Your task to perform on an android device: When is my next appointment? Image 0: 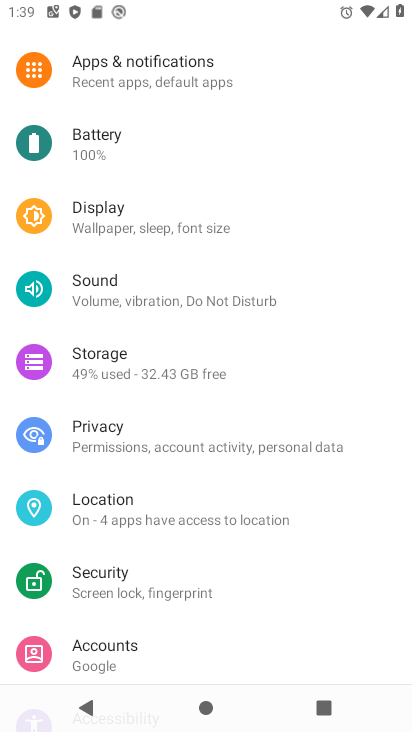
Step 0: press home button
Your task to perform on an android device: When is my next appointment? Image 1: 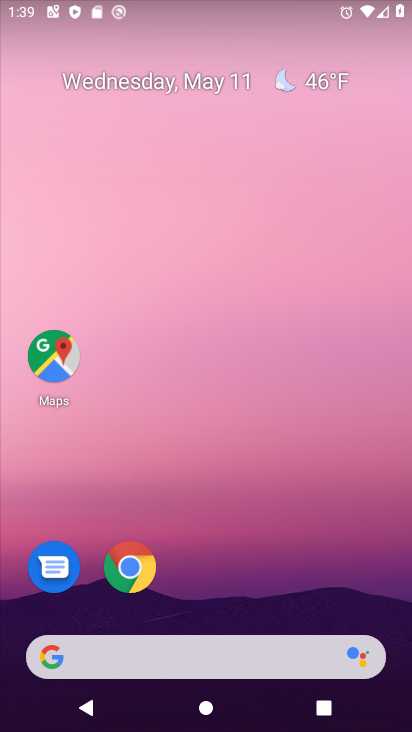
Step 1: drag from (209, 632) to (111, 8)
Your task to perform on an android device: When is my next appointment? Image 2: 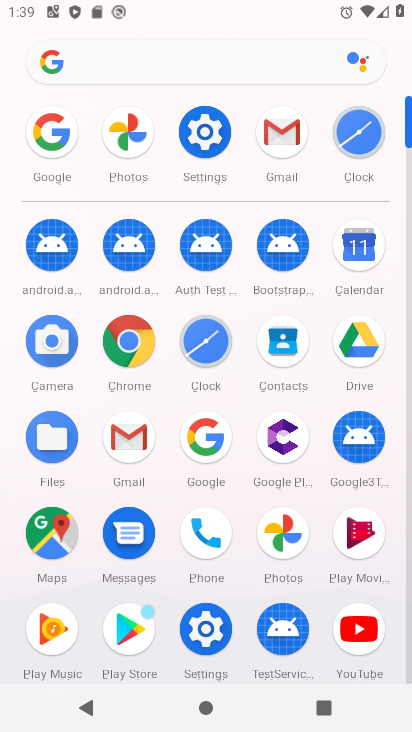
Step 2: click (370, 252)
Your task to perform on an android device: When is my next appointment? Image 3: 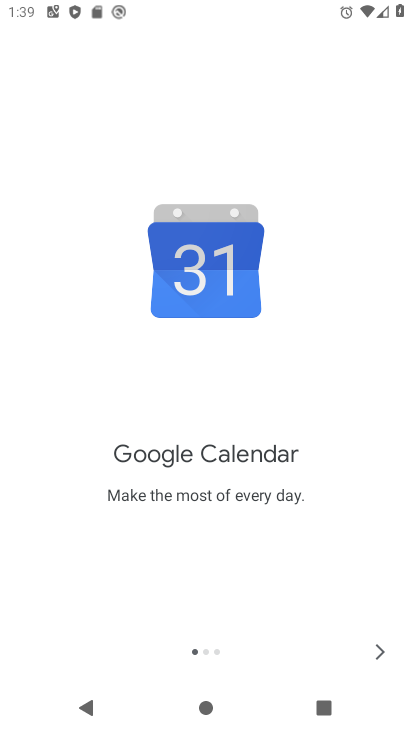
Step 3: click (380, 651)
Your task to perform on an android device: When is my next appointment? Image 4: 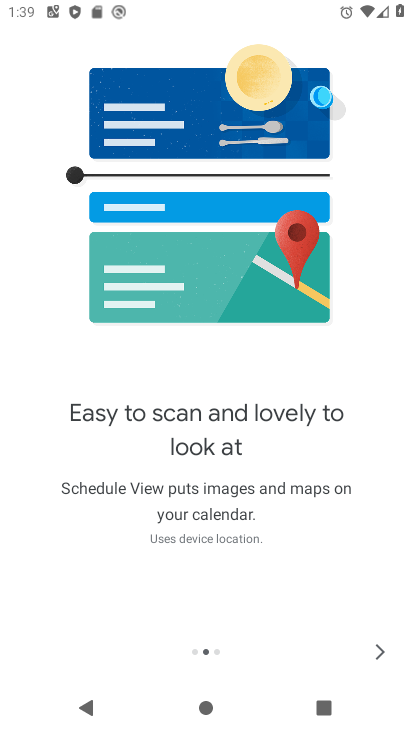
Step 4: click (380, 651)
Your task to perform on an android device: When is my next appointment? Image 5: 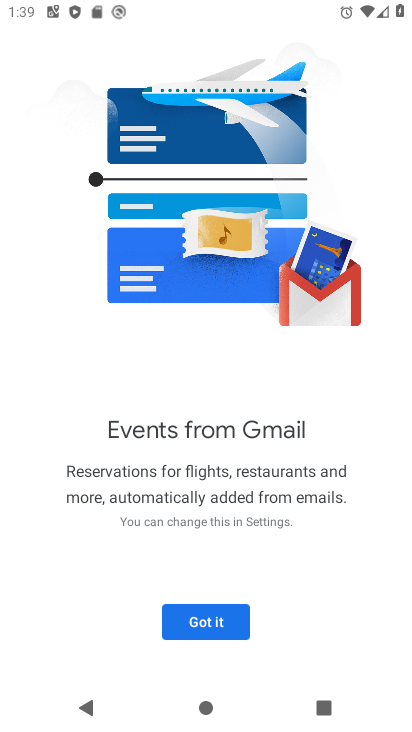
Step 5: click (218, 618)
Your task to perform on an android device: When is my next appointment? Image 6: 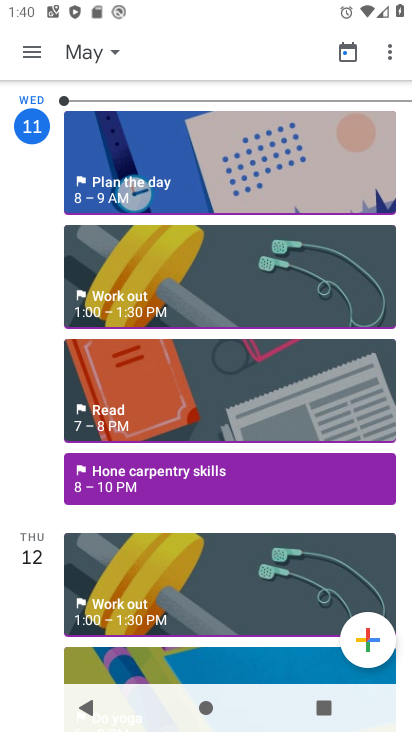
Step 6: task complete